Your task to perform on an android device: choose inbox layout in the gmail app Image 0: 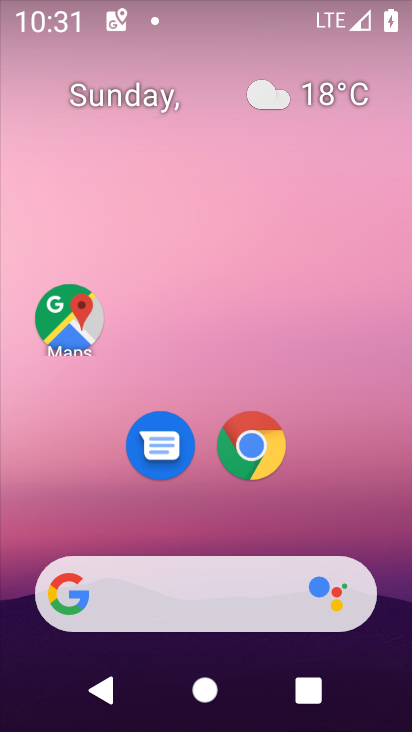
Step 0: drag from (207, 531) to (202, 40)
Your task to perform on an android device: choose inbox layout in the gmail app Image 1: 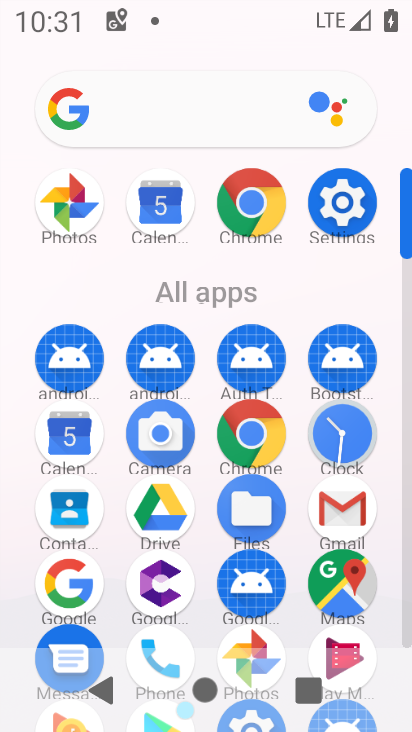
Step 1: click (340, 495)
Your task to perform on an android device: choose inbox layout in the gmail app Image 2: 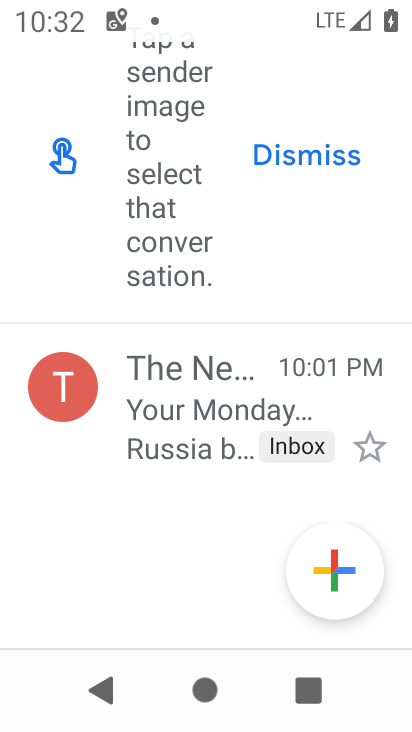
Step 2: drag from (111, 174) to (113, 518)
Your task to perform on an android device: choose inbox layout in the gmail app Image 3: 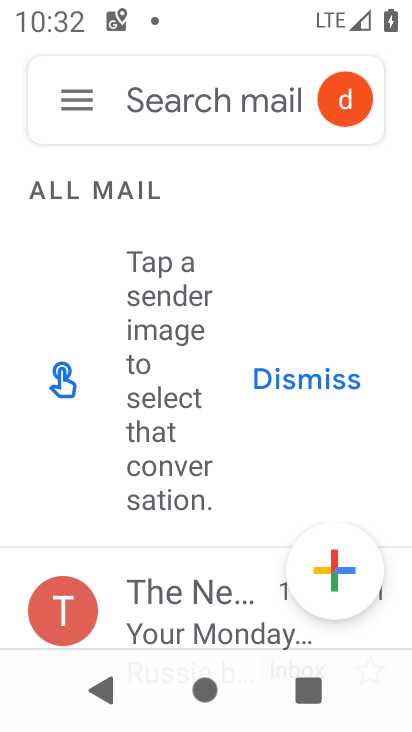
Step 3: click (80, 99)
Your task to perform on an android device: choose inbox layout in the gmail app Image 4: 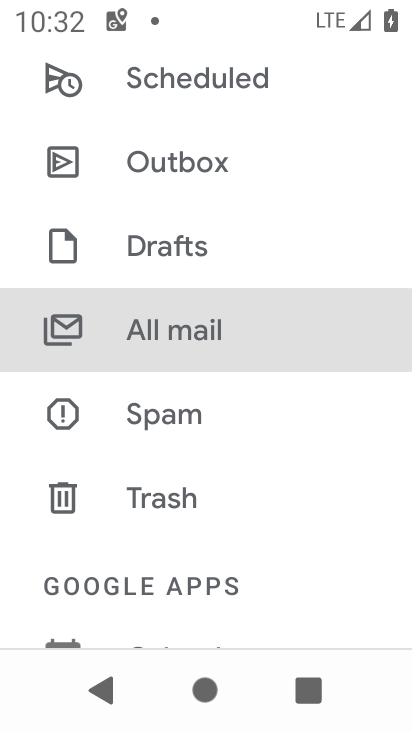
Step 4: drag from (103, 593) to (122, 130)
Your task to perform on an android device: choose inbox layout in the gmail app Image 5: 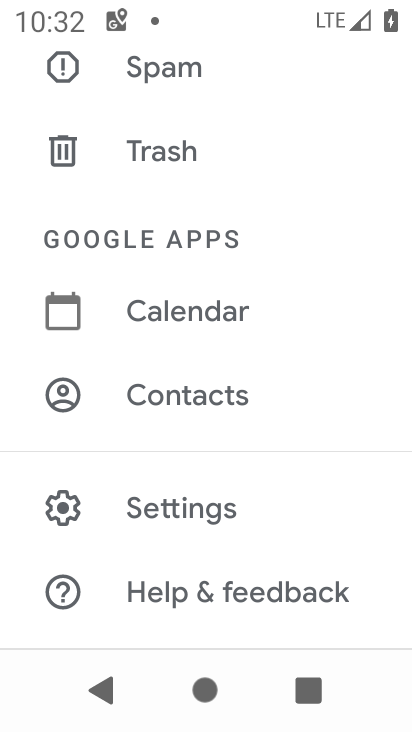
Step 5: click (105, 507)
Your task to perform on an android device: choose inbox layout in the gmail app Image 6: 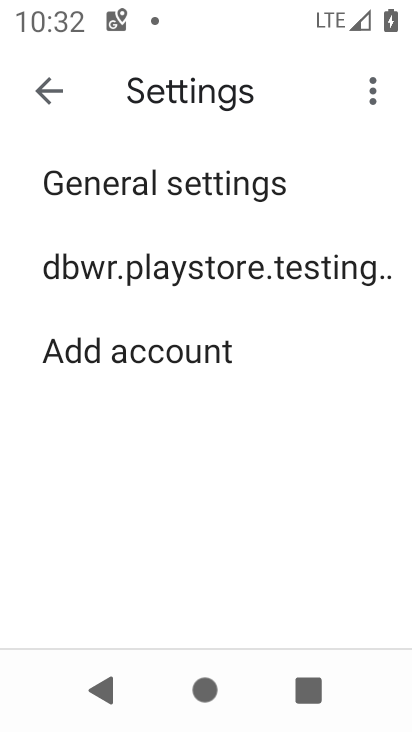
Step 6: click (265, 259)
Your task to perform on an android device: choose inbox layout in the gmail app Image 7: 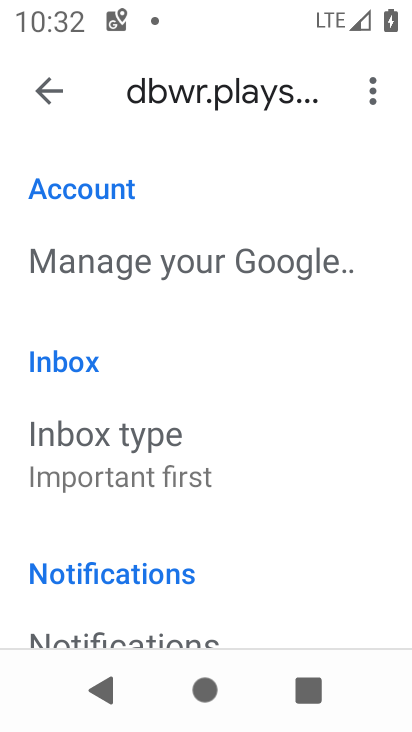
Step 7: click (136, 440)
Your task to perform on an android device: choose inbox layout in the gmail app Image 8: 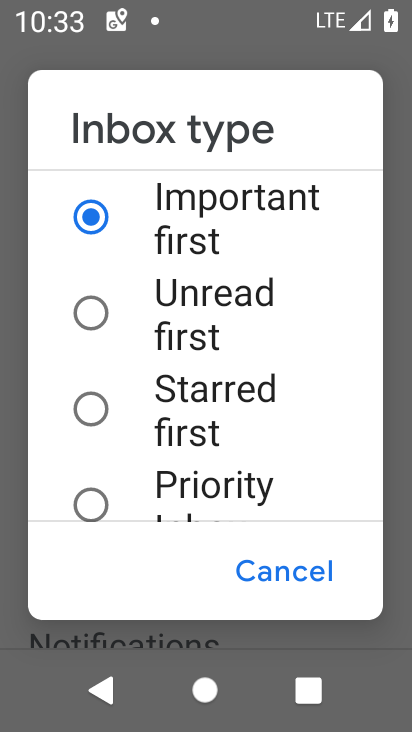
Step 8: drag from (132, 482) to (162, 91)
Your task to perform on an android device: choose inbox layout in the gmail app Image 9: 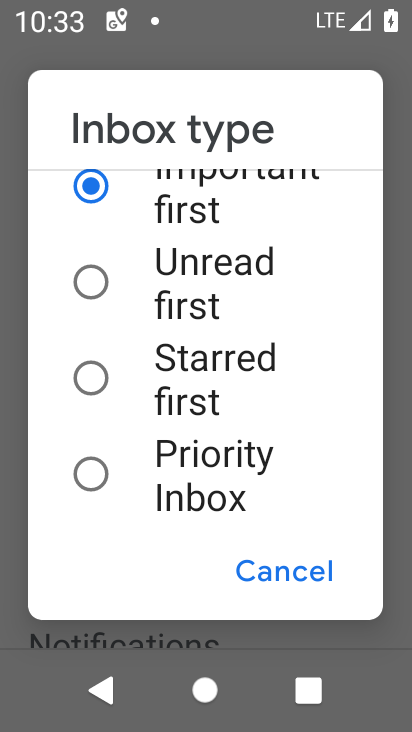
Step 9: click (91, 466)
Your task to perform on an android device: choose inbox layout in the gmail app Image 10: 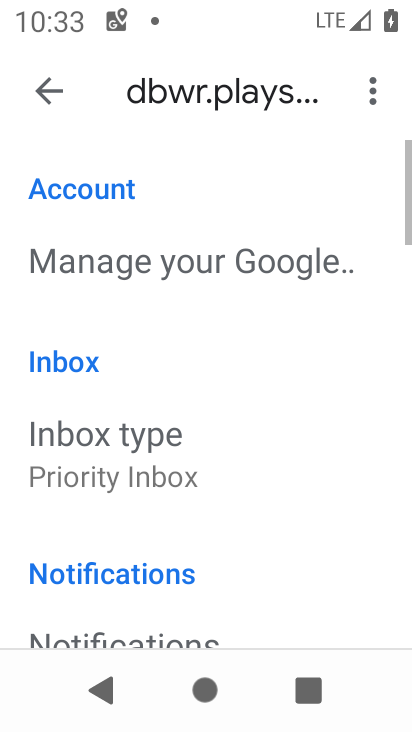
Step 10: task complete